Your task to perform on an android device: stop showing notifications on the lock screen Image 0: 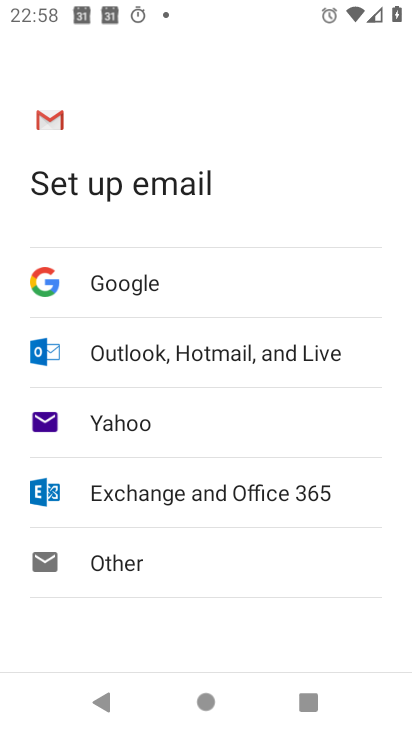
Step 0: press home button
Your task to perform on an android device: stop showing notifications on the lock screen Image 1: 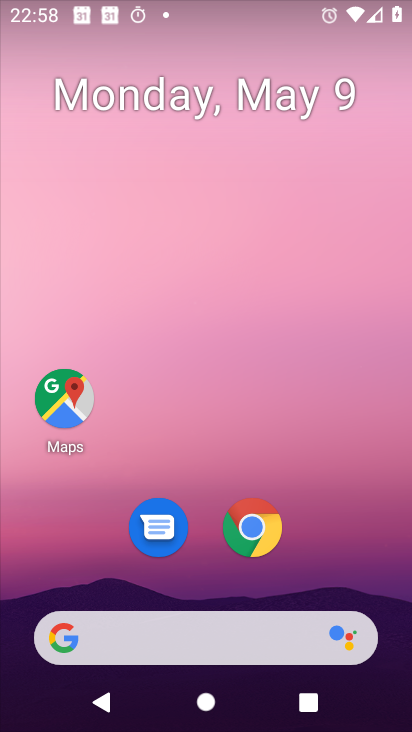
Step 1: drag from (203, 561) to (251, 88)
Your task to perform on an android device: stop showing notifications on the lock screen Image 2: 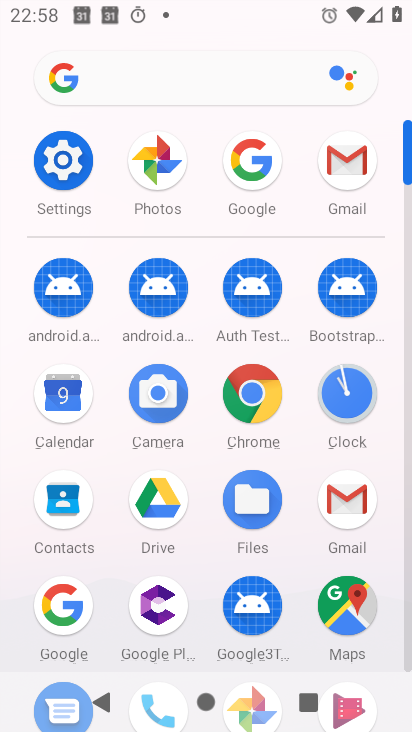
Step 2: click (68, 154)
Your task to perform on an android device: stop showing notifications on the lock screen Image 3: 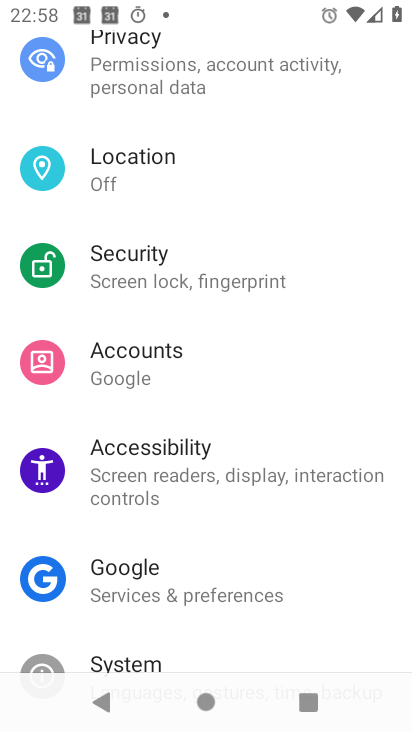
Step 3: drag from (153, 230) to (187, 634)
Your task to perform on an android device: stop showing notifications on the lock screen Image 4: 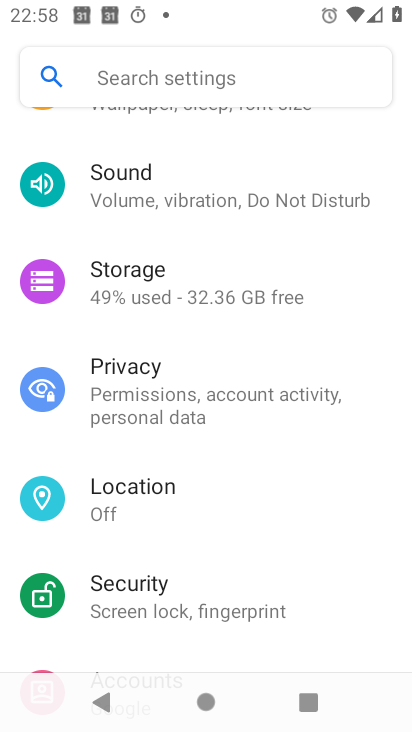
Step 4: drag from (134, 176) to (191, 483)
Your task to perform on an android device: stop showing notifications on the lock screen Image 5: 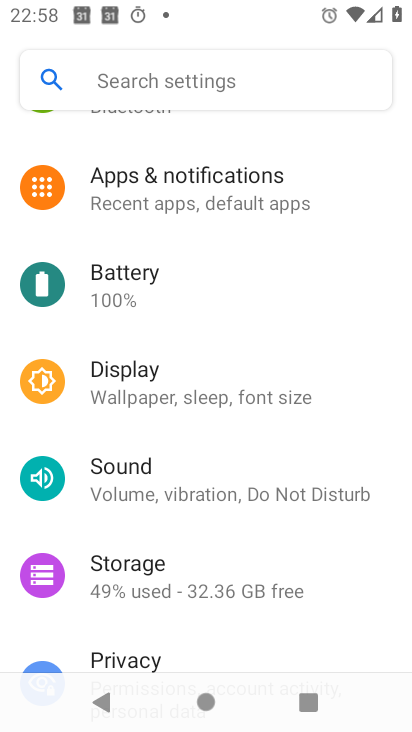
Step 5: click (153, 173)
Your task to perform on an android device: stop showing notifications on the lock screen Image 6: 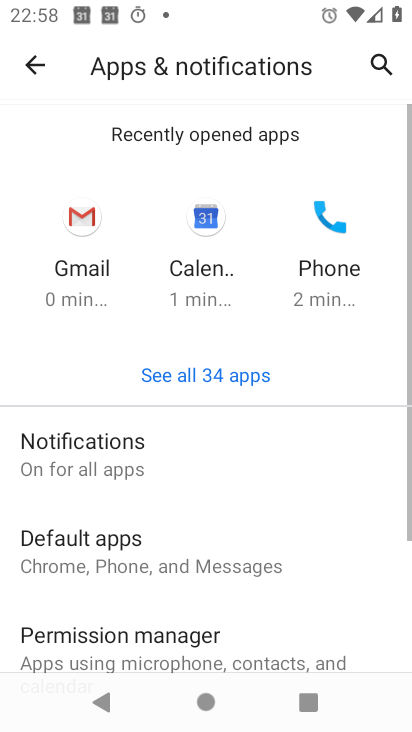
Step 6: click (139, 446)
Your task to perform on an android device: stop showing notifications on the lock screen Image 7: 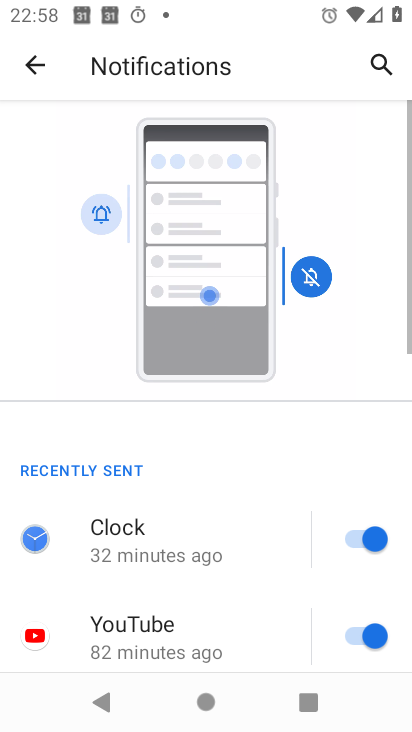
Step 7: drag from (202, 533) to (223, 23)
Your task to perform on an android device: stop showing notifications on the lock screen Image 8: 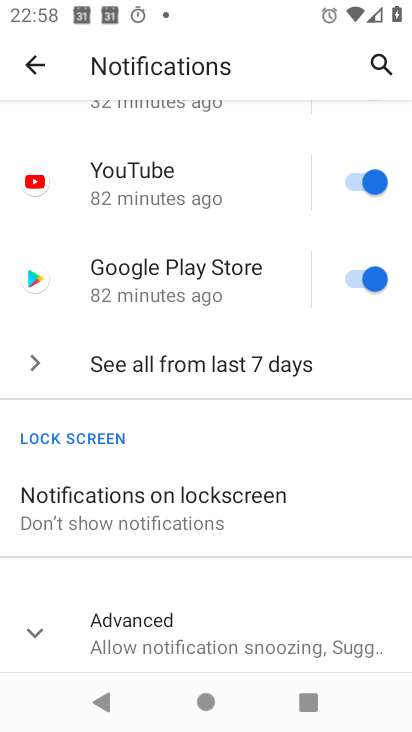
Step 8: click (150, 504)
Your task to perform on an android device: stop showing notifications on the lock screen Image 9: 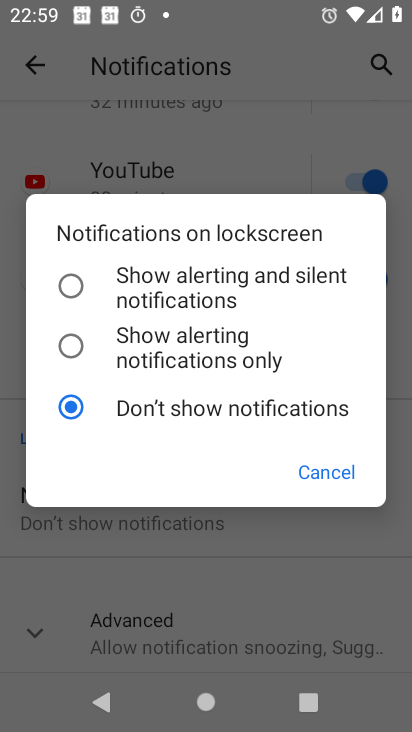
Step 9: task complete